Your task to perform on an android device: Go to Android settings Image 0: 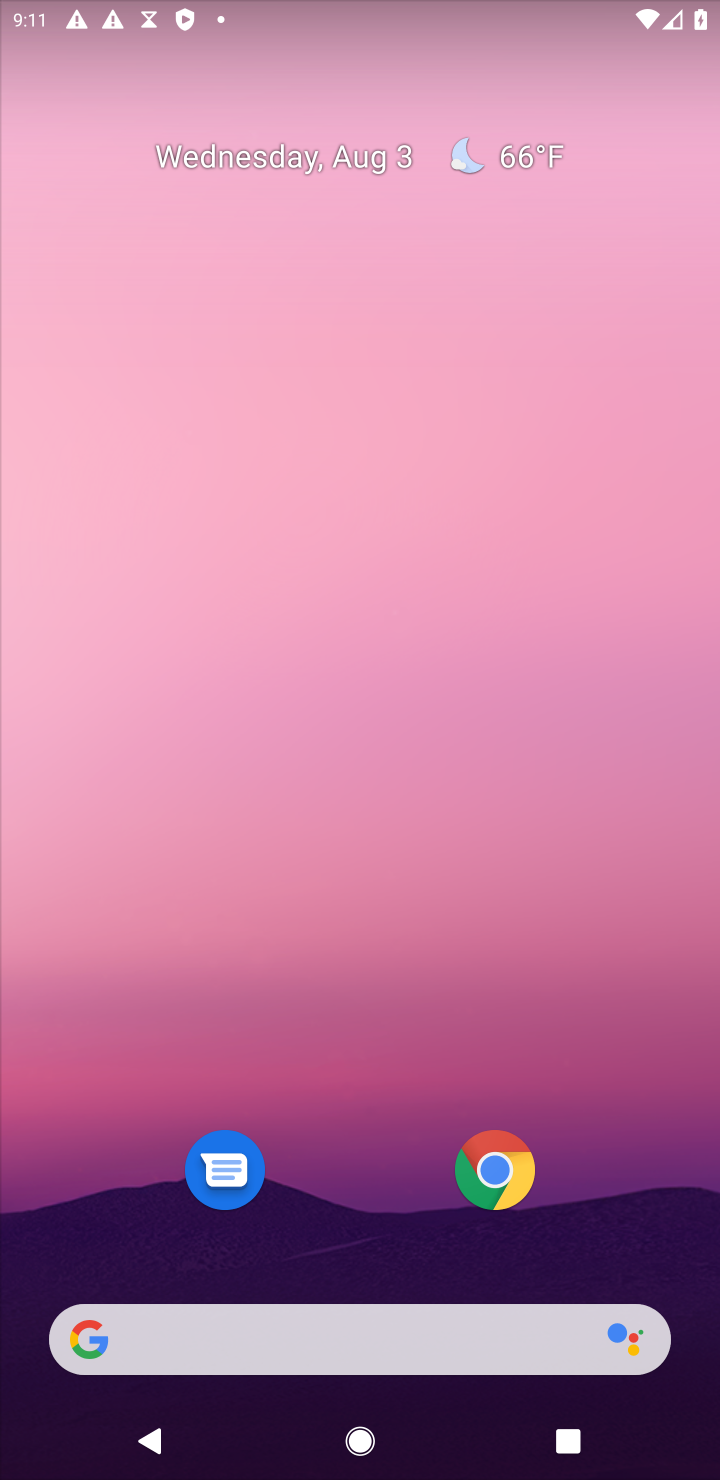
Step 0: drag from (617, 1199) to (507, 288)
Your task to perform on an android device: Go to Android settings Image 1: 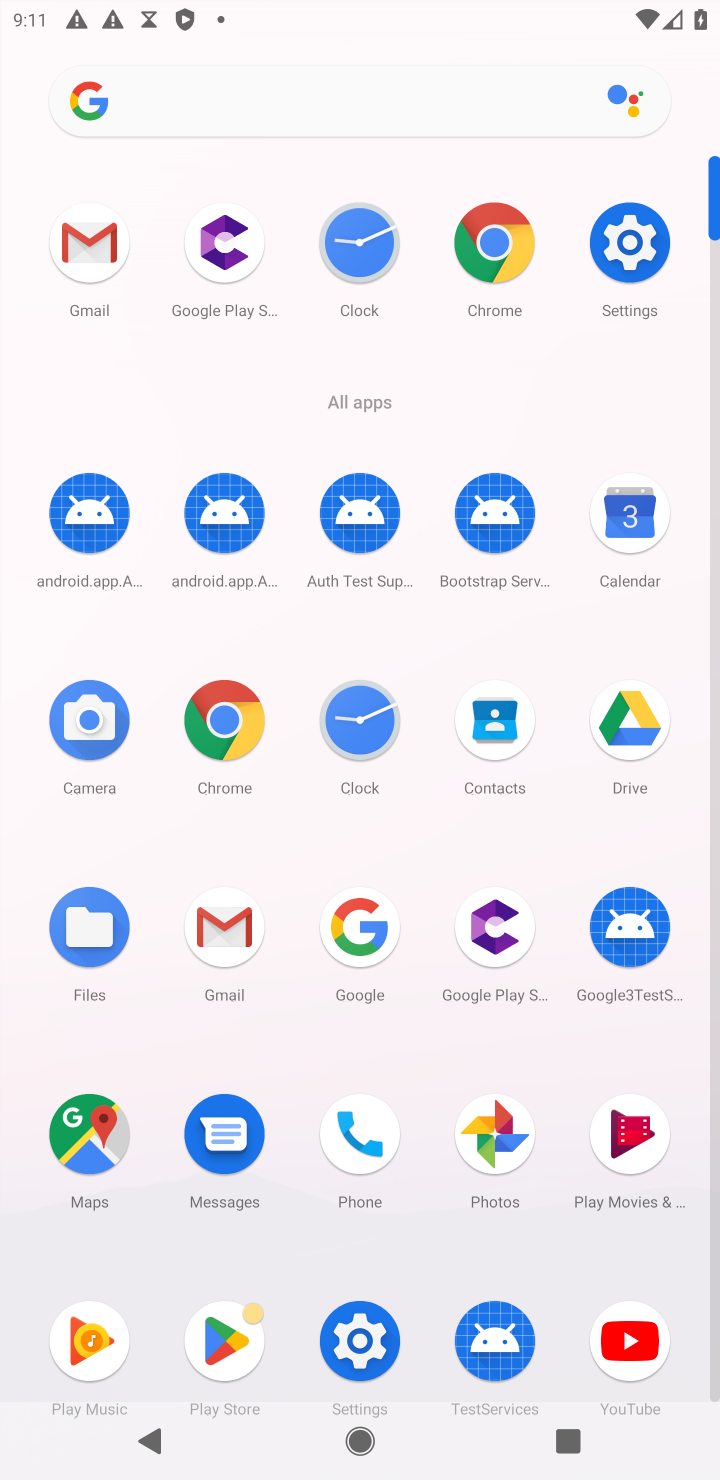
Step 1: click (613, 276)
Your task to perform on an android device: Go to Android settings Image 2: 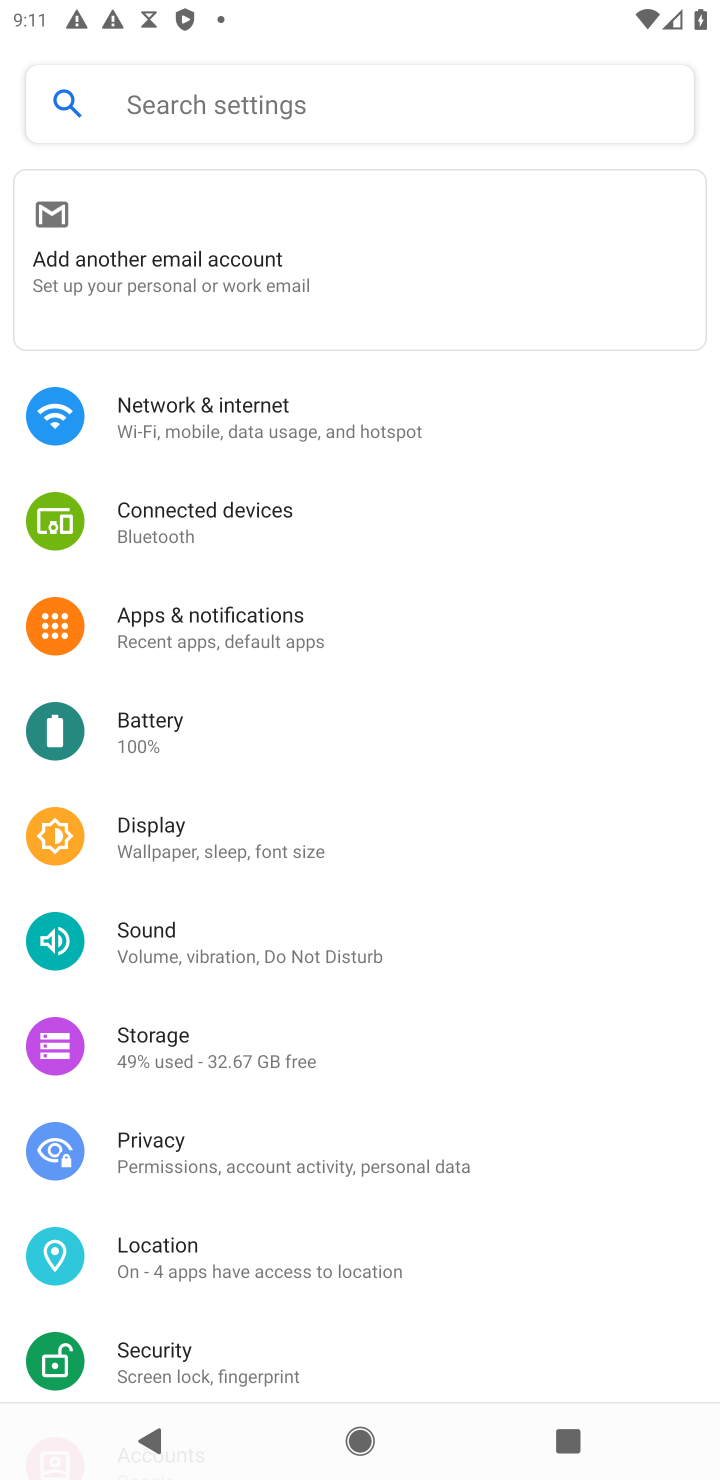
Step 2: task complete